Your task to perform on an android device: Open settings Image 0: 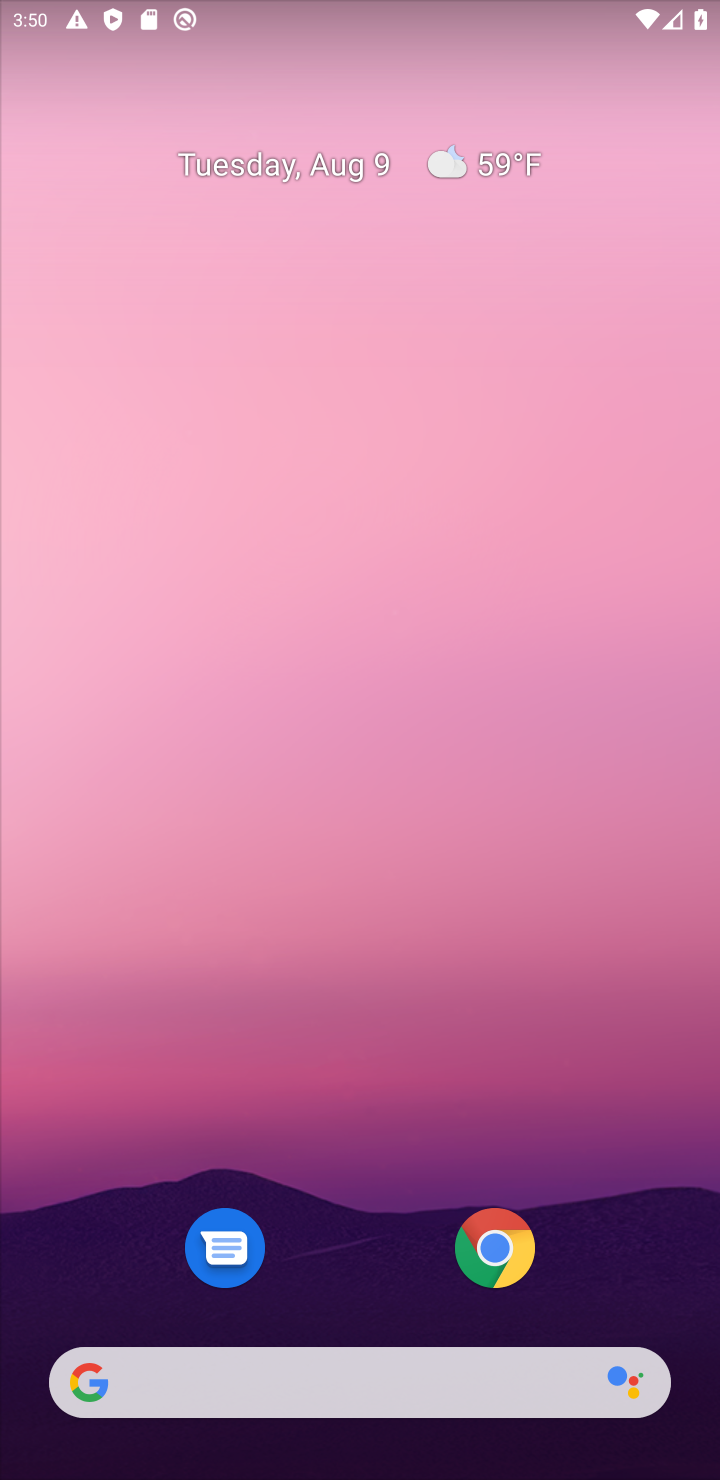
Step 0: drag from (355, 1239) to (231, 495)
Your task to perform on an android device: Open settings Image 1: 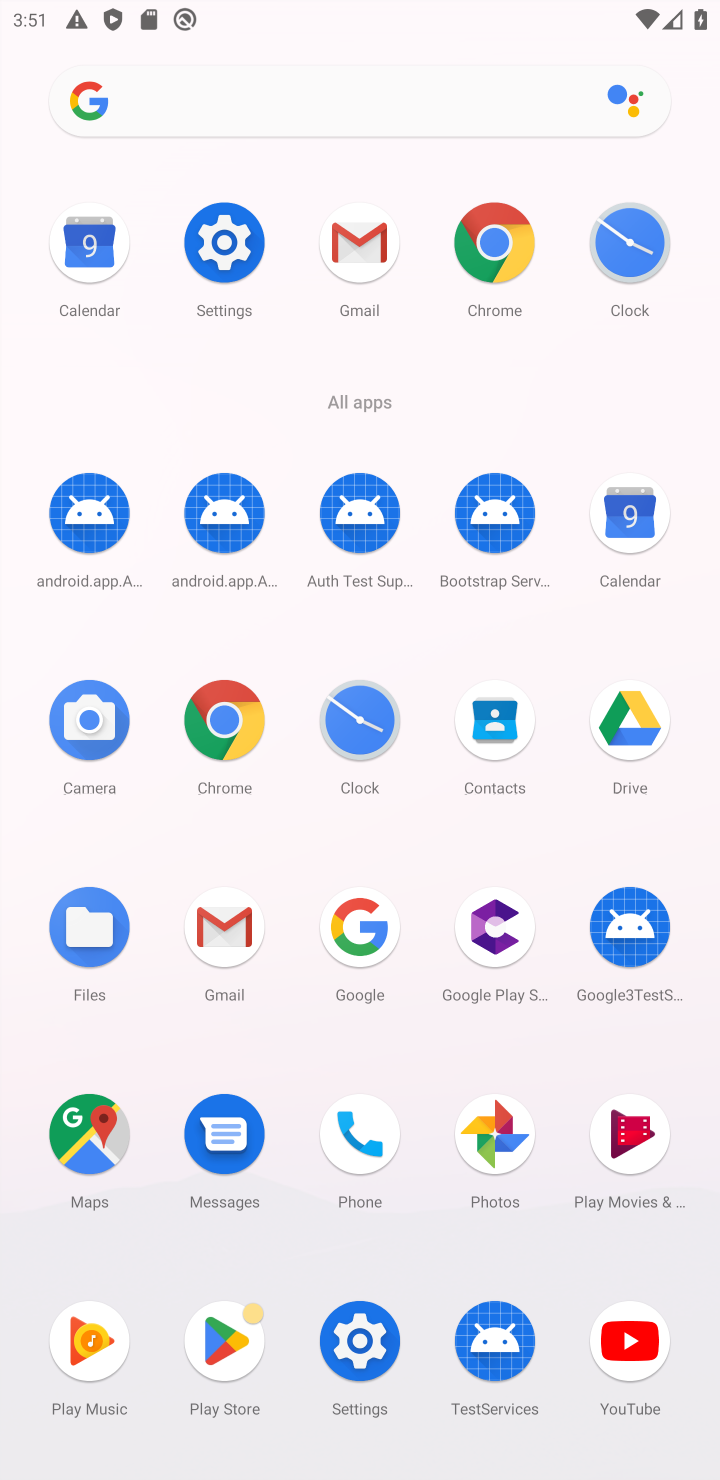
Step 1: click (353, 1347)
Your task to perform on an android device: Open settings Image 2: 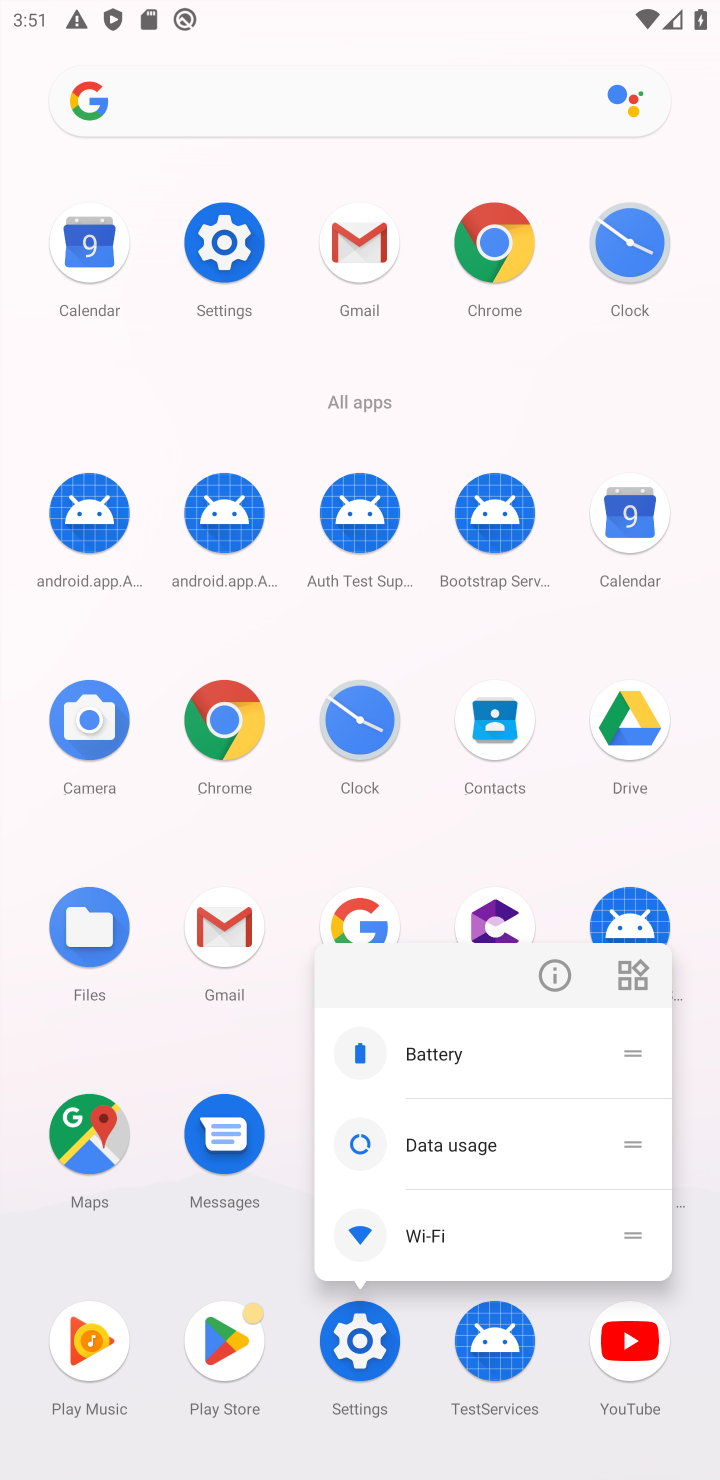
Step 2: click (353, 1347)
Your task to perform on an android device: Open settings Image 3: 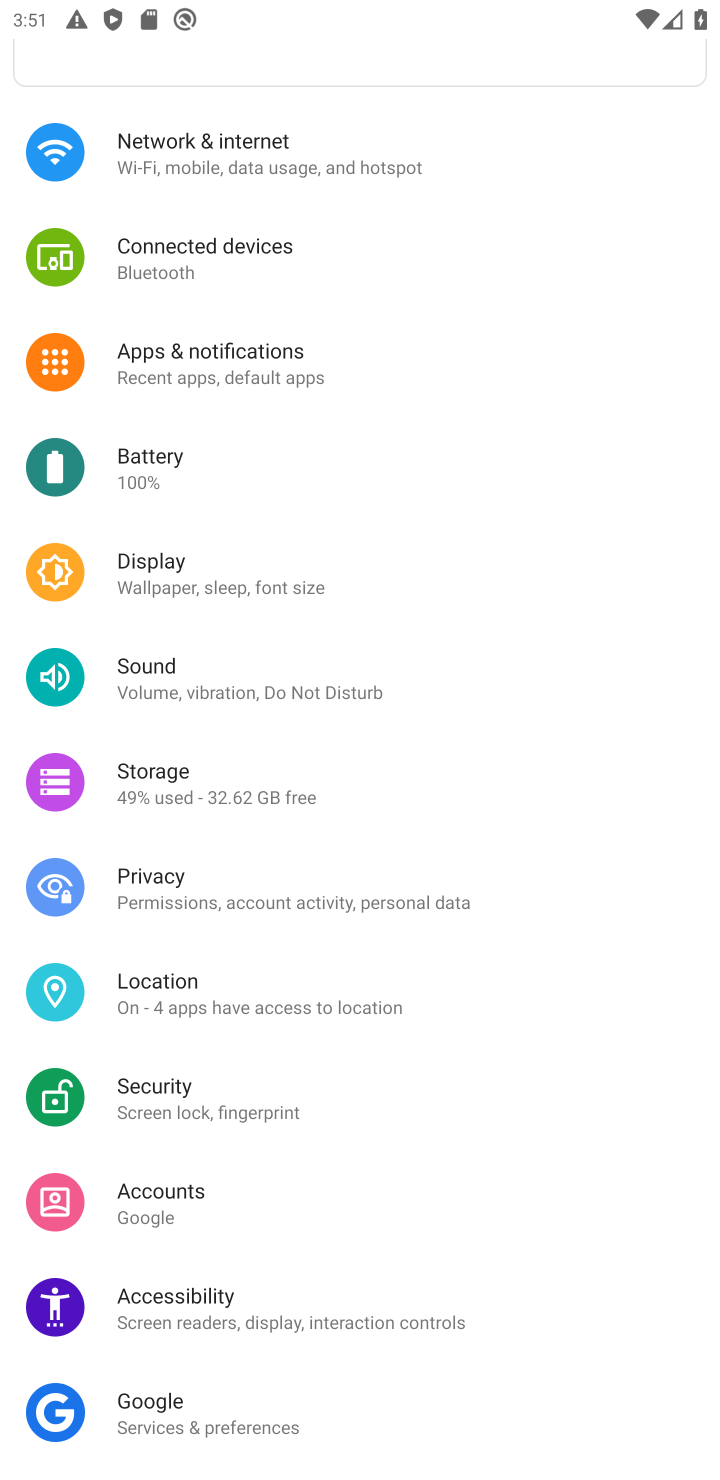
Step 3: task complete